Your task to perform on an android device: manage bookmarks in the chrome app Image 0: 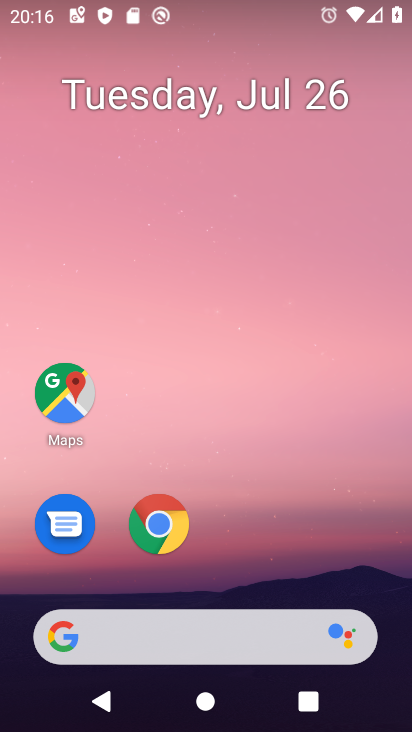
Step 0: click (163, 519)
Your task to perform on an android device: manage bookmarks in the chrome app Image 1: 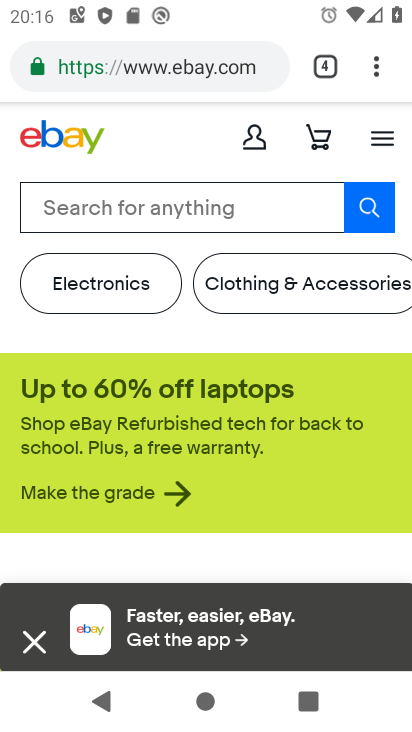
Step 1: click (375, 72)
Your task to perform on an android device: manage bookmarks in the chrome app Image 2: 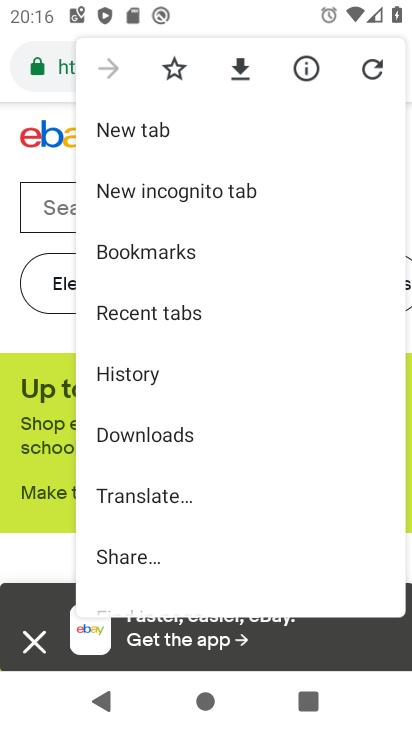
Step 2: click (176, 243)
Your task to perform on an android device: manage bookmarks in the chrome app Image 3: 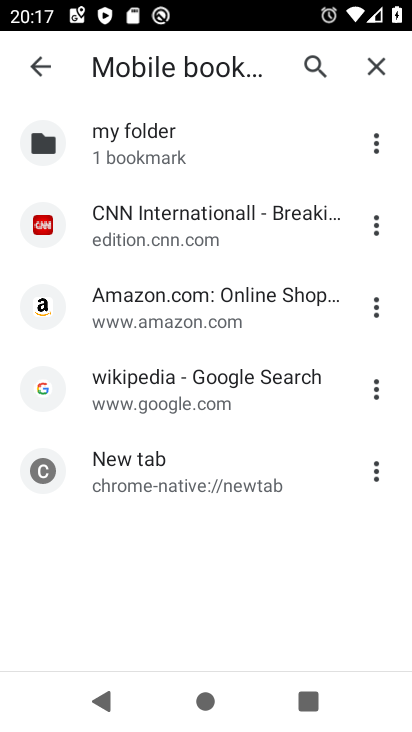
Step 3: click (371, 228)
Your task to perform on an android device: manage bookmarks in the chrome app Image 4: 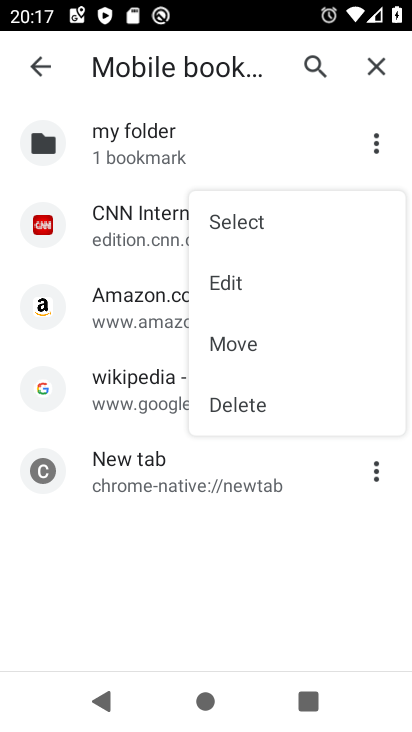
Step 4: click (258, 275)
Your task to perform on an android device: manage bookmarks in the chrome app Image 5: 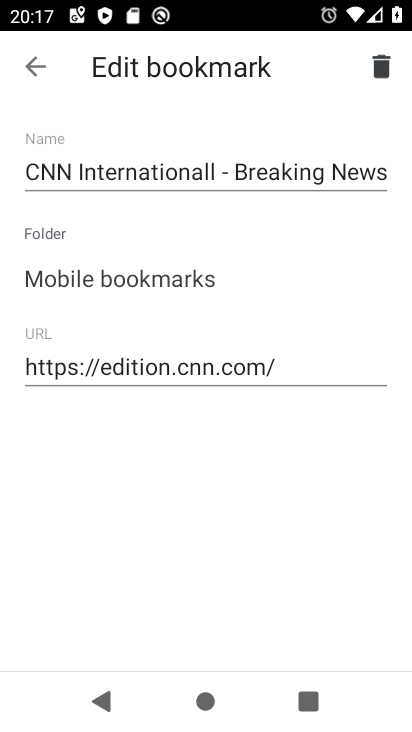
Step 5: task complete